Your task to perform on an android device: Go to network settings Image 0: 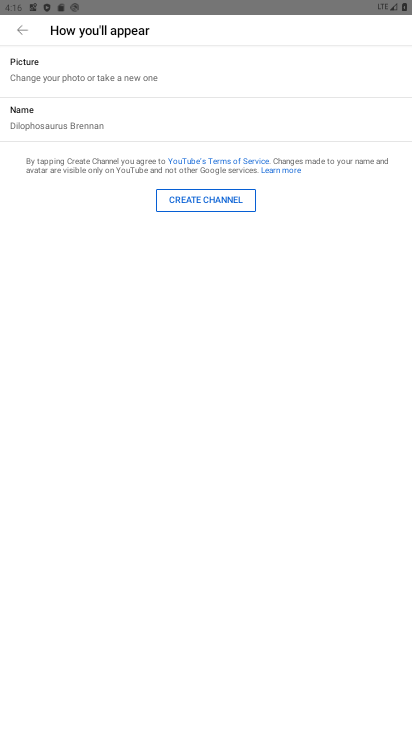
Step 0: press home button
Your task to perform on an android device: Go to network settings Image 1: 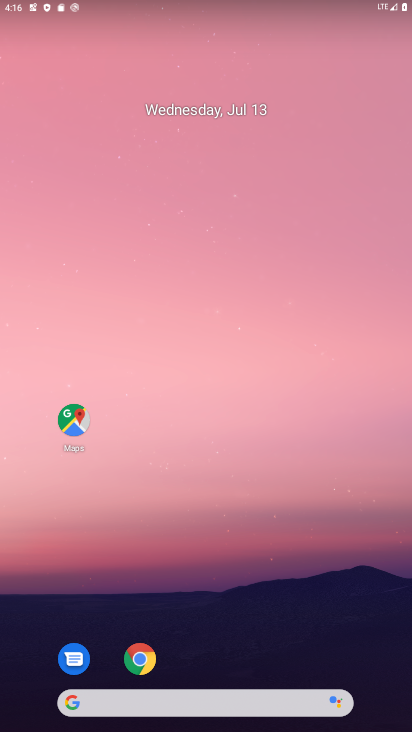
Step 1: drag from (222, 669) to (216, 0)
Your task to perform on an android device: Go to network settings Image 2: 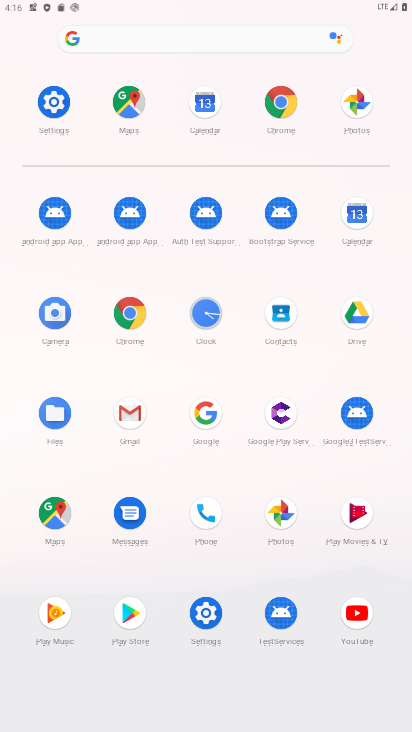
Step 2: click (50, 95)
Your task to perform on an android device: Go to network settings Image 3: 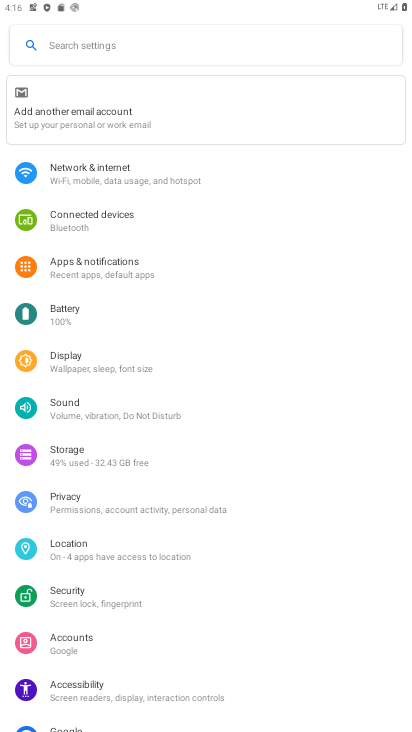
Step 3: click (144, 171)
Your task to perform on an android device: Go to network settings Image 4: 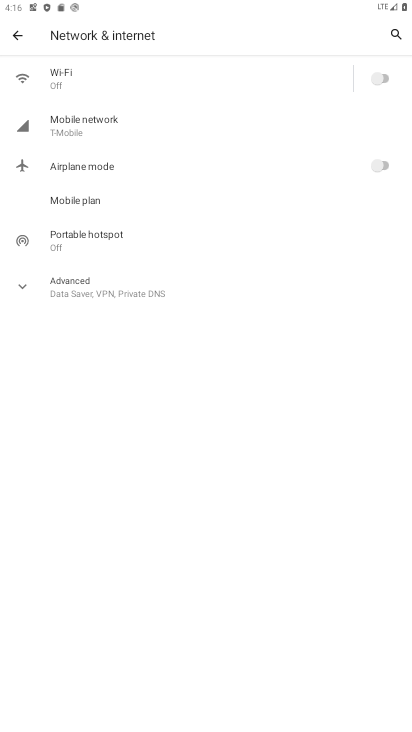
Step 4: click (23, 289)
Your task to perform on an android device: Go to network settings Image 5: 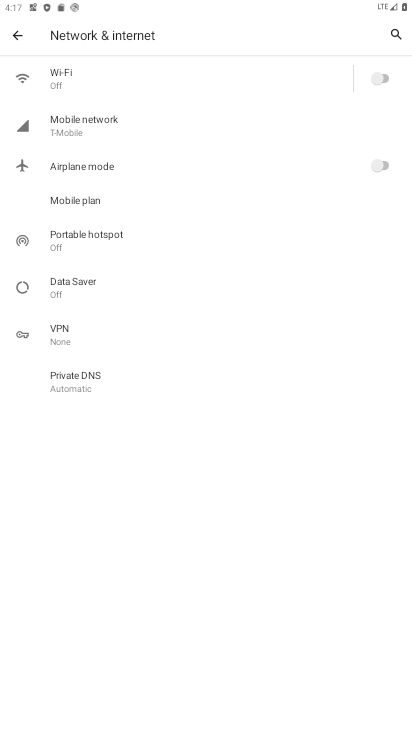
Step 5: task complete